Your task to perform on an android device: Search for vegetarian restaurants on Maps Image 0: 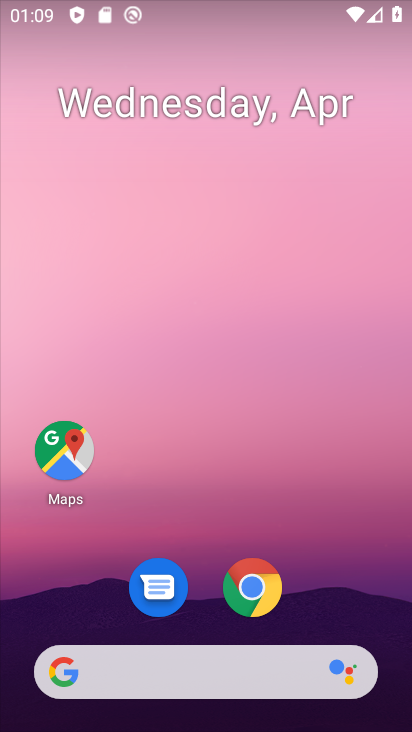
Step 0: click (64, 456)
Your task to perform on an android device: Search for vegetarian restaurants on Maps Image 1: 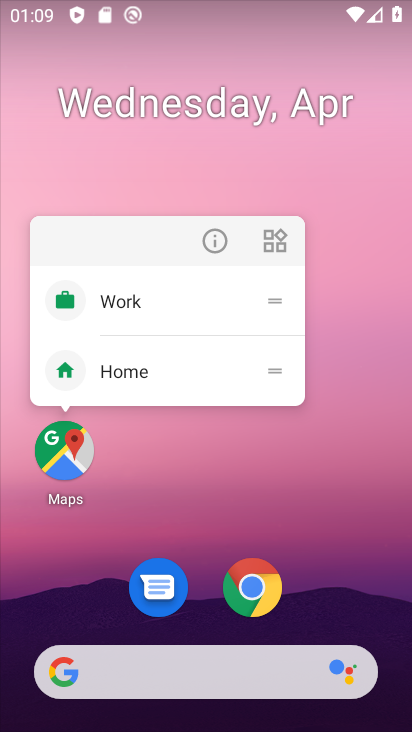
Step 1: click (53, 450)
Your task to perform on an android device: Search for vegetarian restaurants on Maps Image 2: 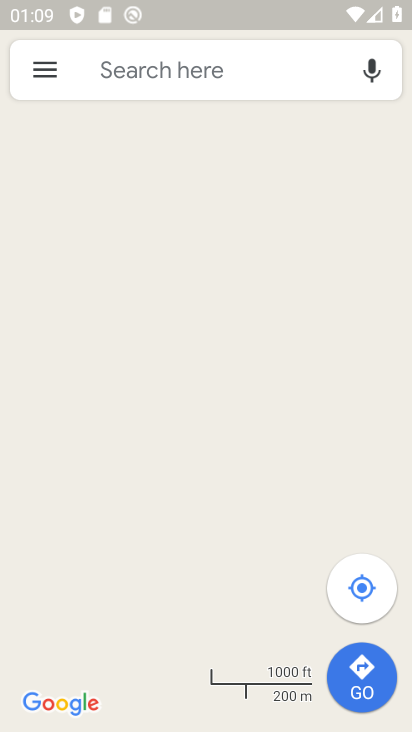
Step 2: click (125, 75)
Your task to perform on an android device: Search for vegetarian restaurants on Maps Image 3: 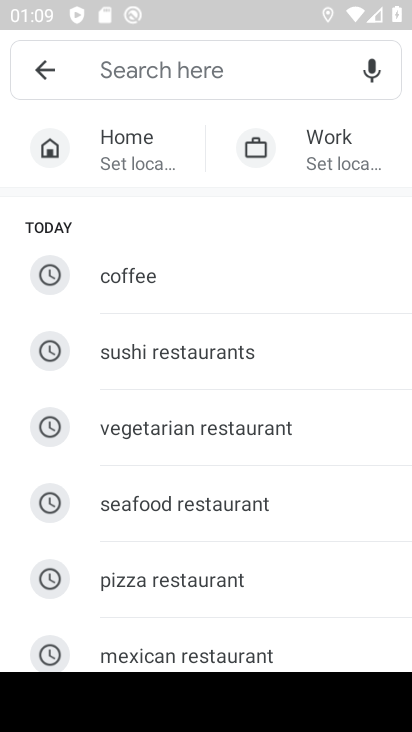
Step 3: type "vegetarian restaurant"
Your task to perform on an android device: Search for vegetarian restaurants on Maps Image 4: 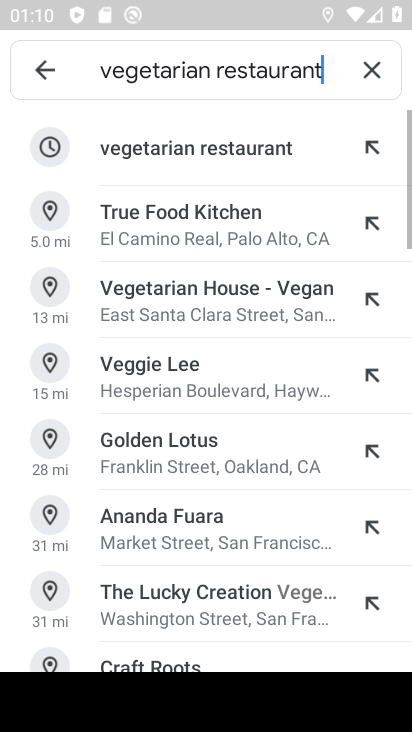
Step 4: click (123, 148)
Your task to perform on an android device: Search for vegetarian restaurants on Maps Image 5: 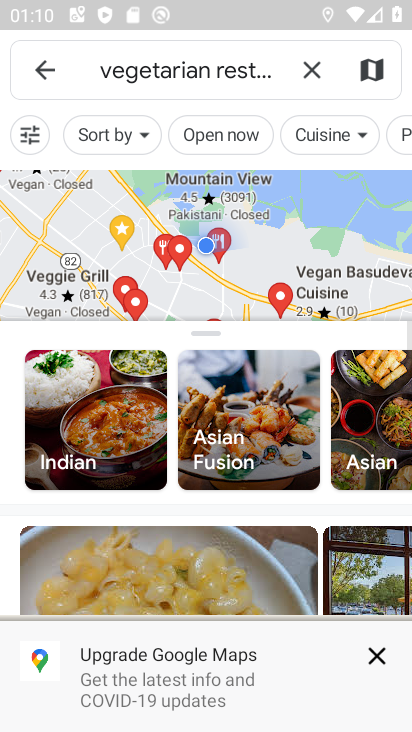
Step 5: task complete